Your task to perform on an android device: Open the calendar and show me this week's events? Image 0: 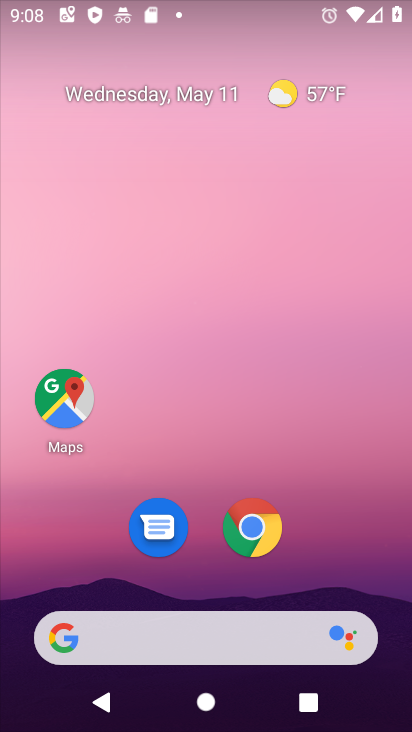
Step 0: press home button
Your task to perform on an android device: Open the calendar and show me this week's events? Image 1: 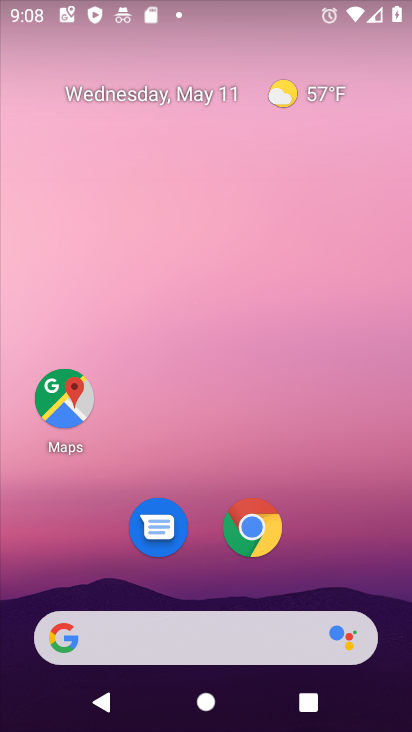
Step 1: drag from (368, 587) to (375, 12)
Your task to perform on an android device: Open the calendar and show me this week's events? Image 2: 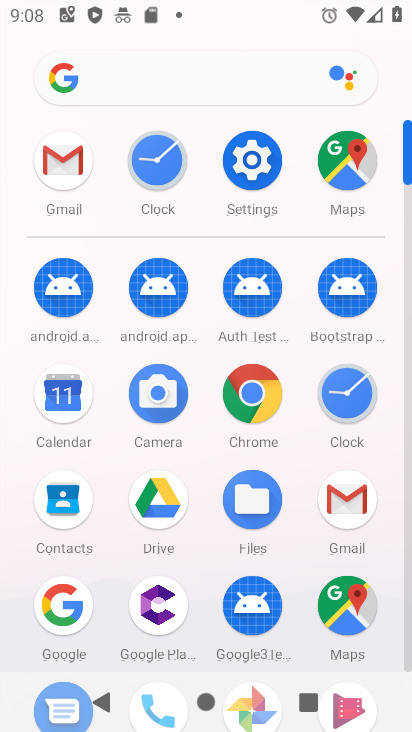
Step 2: click (59, 412)
Your task to perform on an android device: Open the calendar and show me this week's events? Image 3: 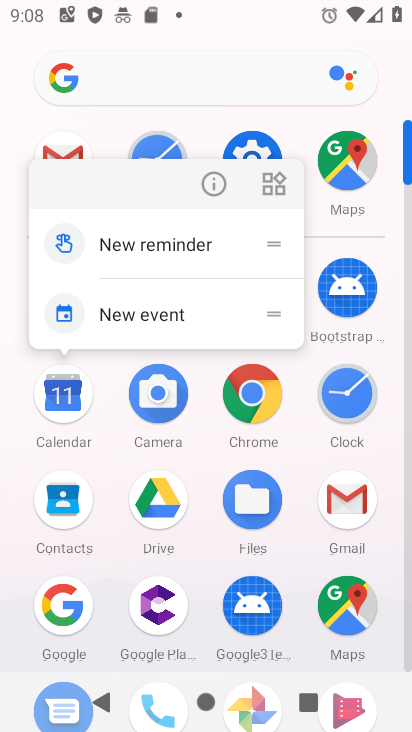
Step 3: click (59, 412)
Your task to perform on an android device: Open the calendar and show me this week's events? Image 4: 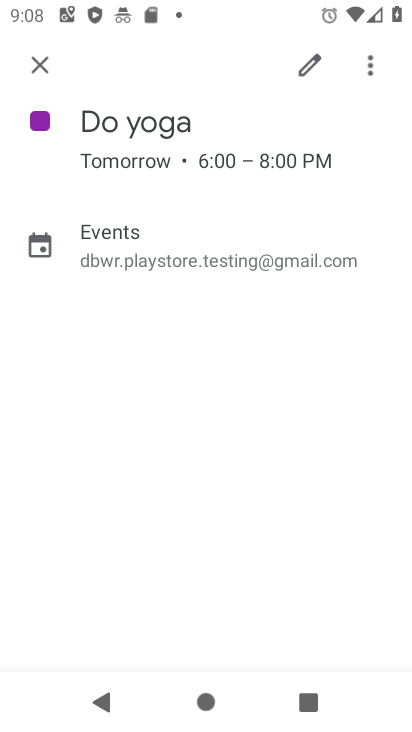
Step 4: click (42, 66)
Your task to perform on an android device: Open the calendar and show me this week's events? Image 5: 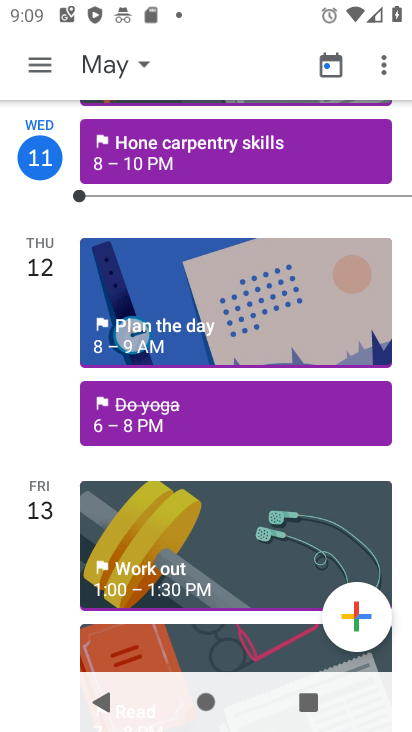
Step 5: click (35, 66)
Your task to perform on an android device: Open the calendar and show me this week's events? Image 6: 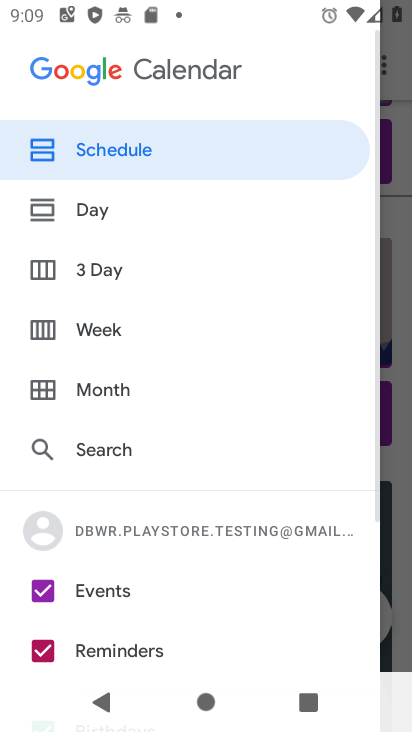
Step 6: click (123, 329)
Your task to perform on an android device: Open the calendar and show me this week's events? Image 7: 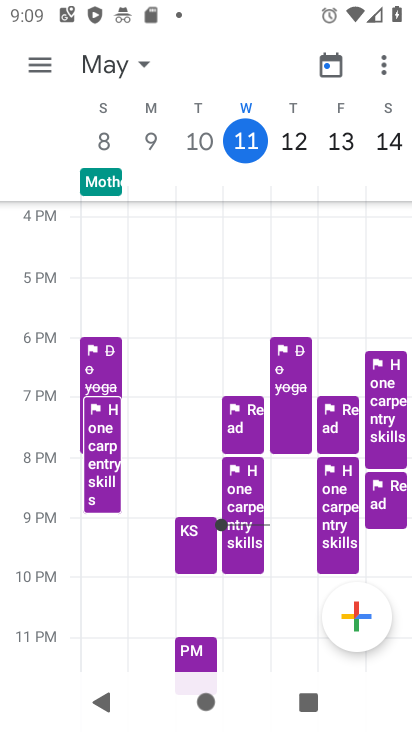
Step 7: drag from (250, 457) to (243, 388)
Your task to perform on an android device: Open the calendar and show me this week's events? Image 8: 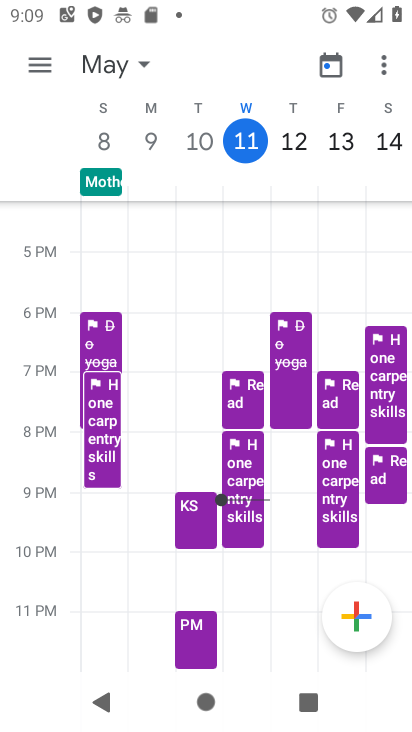
Step 8: click (41, 70)
Your task to perform on an android device: Open the calendar and show me this week's events? Image 9: 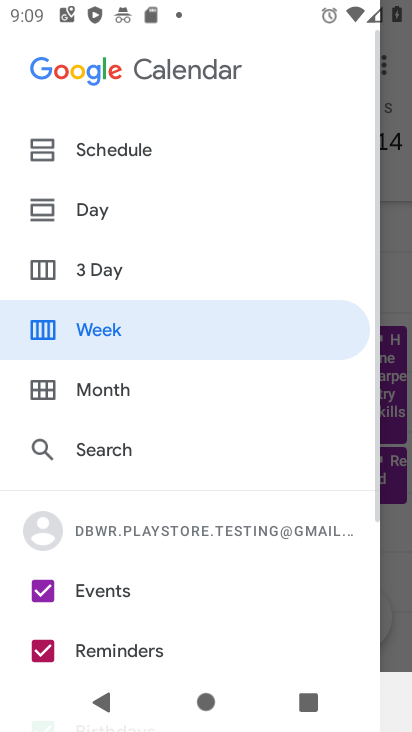
Step 9: click (45, 663)
Your task to perform on an android device: Open the calendar and show me this week's events? Image 10: 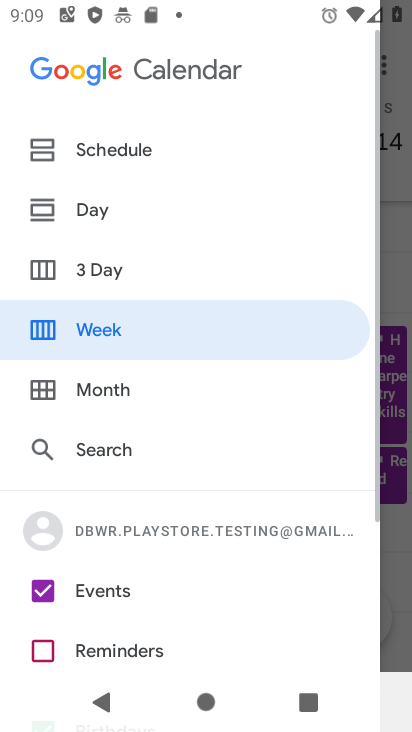
Step 10: drag from (149, 635) to (128, 292)
Your task to perform on an android device: Open the calendar and show me this week's events? Image 11: 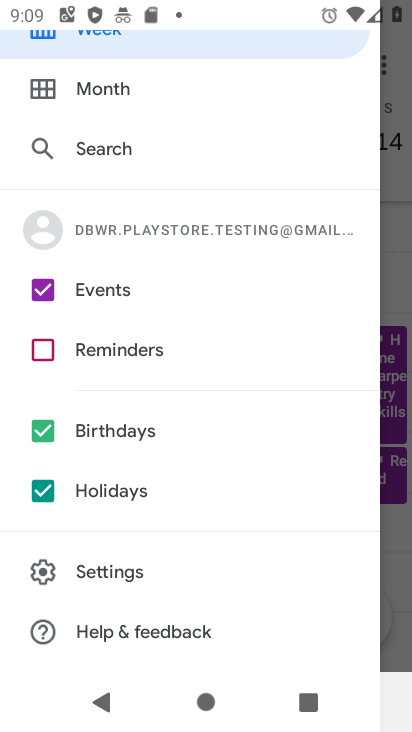
Step 11: click (38, 439)
Your task to perform on an android device: Open the calendar and show me this week's events? Image 12: 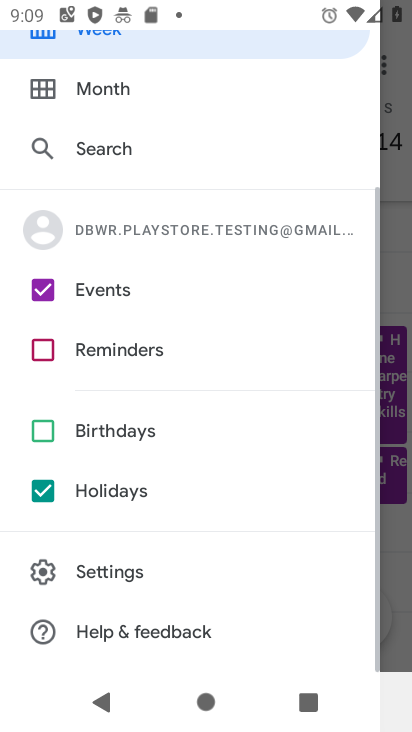
Step 12: click (45, 498)
Your task to perform on an android device: Open the calendar and show me this week's events? Image 13: 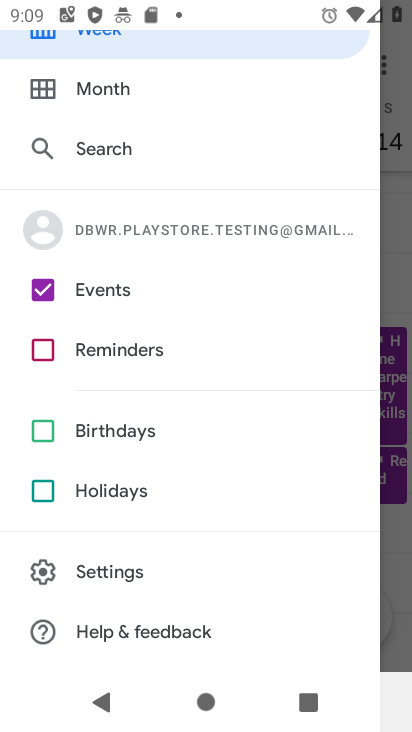
Step 13: drag from (195, 445) to (198, 506)
Your task to perform on an android device: Open the calendar and show me this week's events? Image 14: 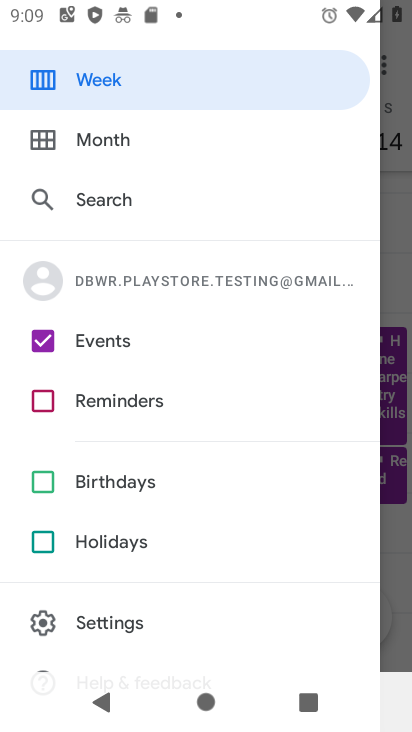
Step 14: click (70, 90)
Your task to perform on an android device: Open the calendar and show me this week's events? Image 15: 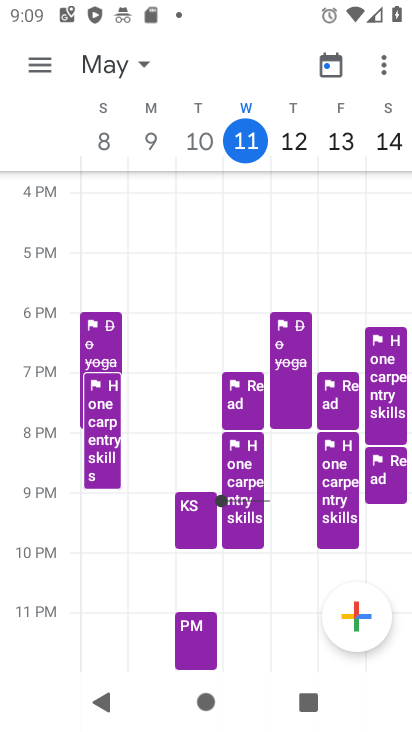
Step 15: task complete